Your task to perform on an android device: turn smart compose on in the gmail app Image 0: 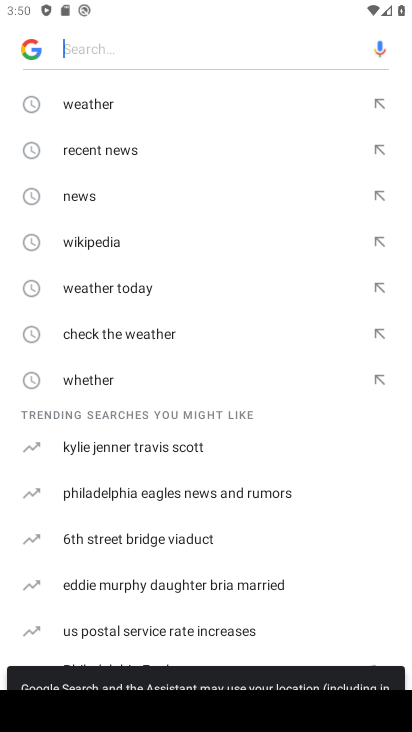
Step 0: press home button
Your task to perform on an android device: turn smart compose on in the gmail app Image 1: 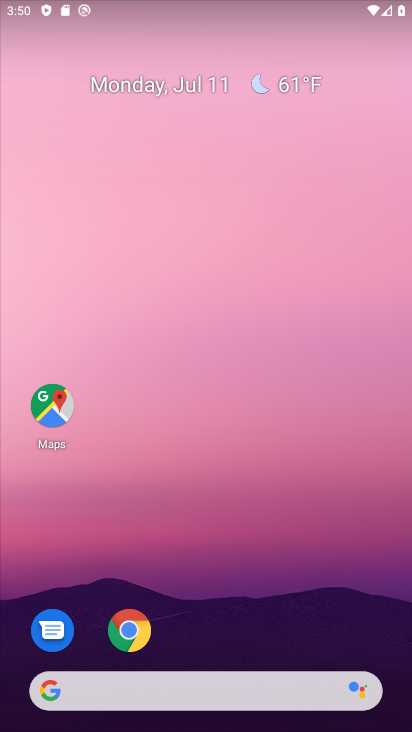
Step 1: drag from (166, 662) to (253, 203)
Your task to perform on an android device: turn smart compose on in the gmail app Image 2: 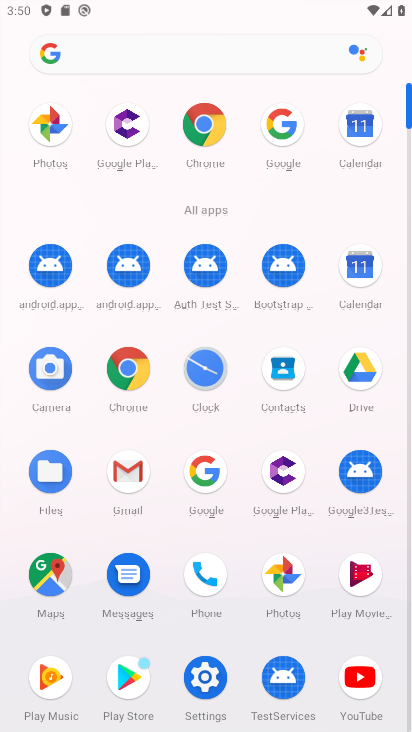
Step 2: click (110, 479)
Your task to perform on an android device: turn smart compose on in the gmail app Image 3: 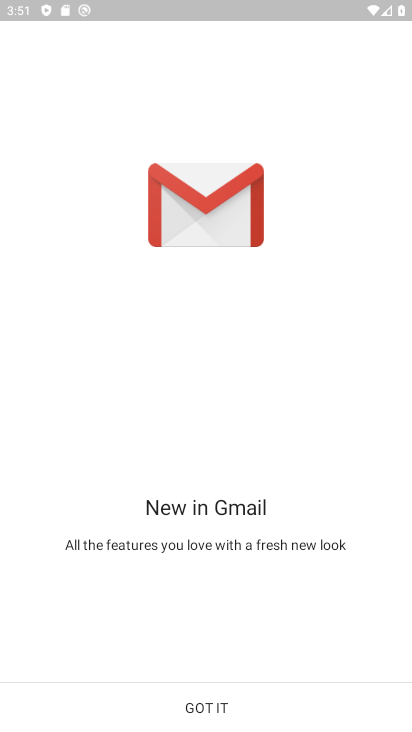
Step 3: click (207, 706)
Your task to perform on an android device: turn smart compose on in the gmail app Image 4: 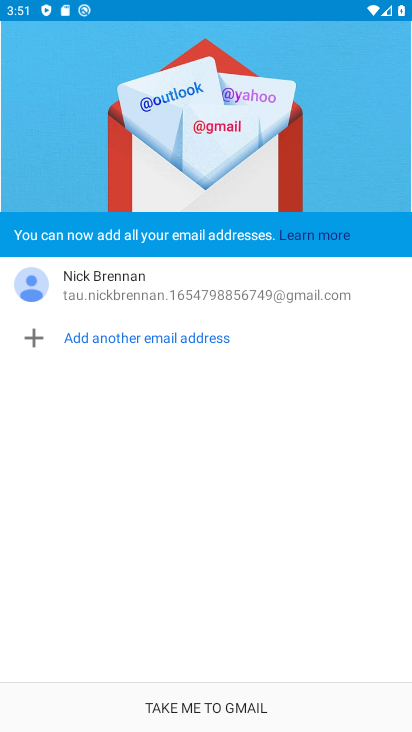
Step 4: click (209, 706)
Your task to perform on an android device: turn smart compose on in the gmail app Image 5: 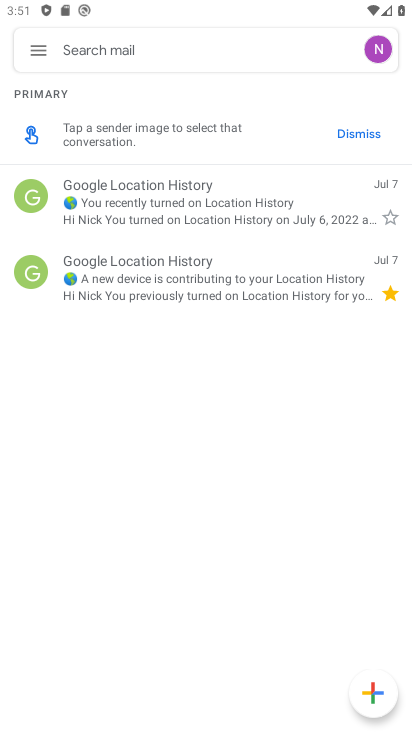
Step 5: click (40, 66)
Your task to perform on an android device: turn smart compose on in the gmail app Image 6: 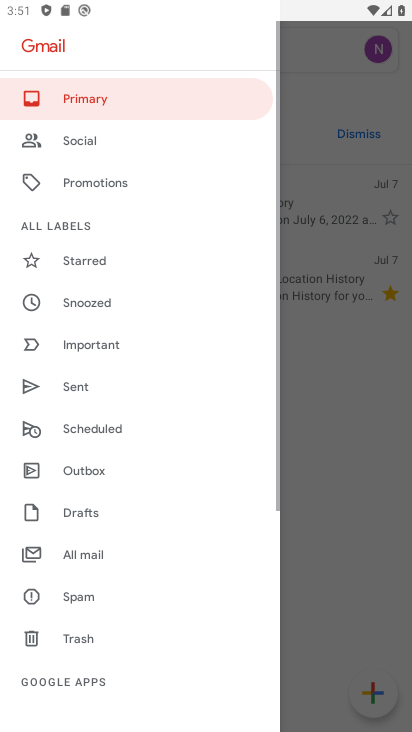
Step 6: drag from (89, 603) to (196, 259)
Your task to perform on an android device: turn smart compose on in the gmail app Image 7: 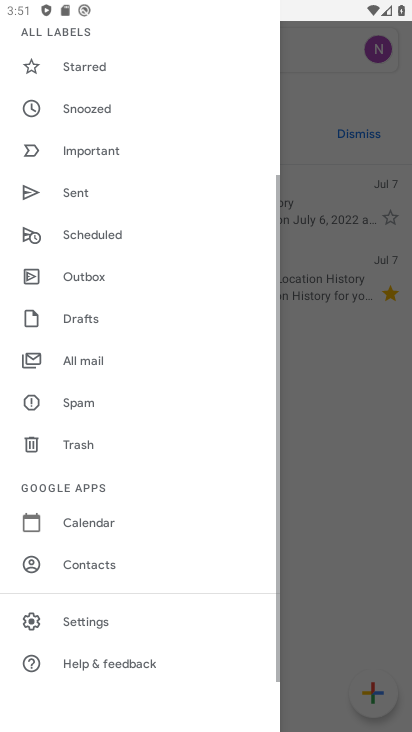
Step 7: click (98, 628)
Your task to perform on an android device: turn smart compose on in the gmail app Image 8: 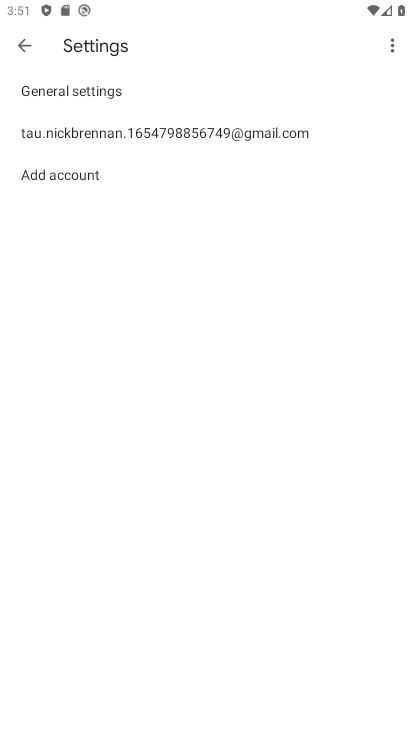
Step 8: click (259, 132)
Your task to perform on an android device: turn smart compose on in the gmail app Image 9: 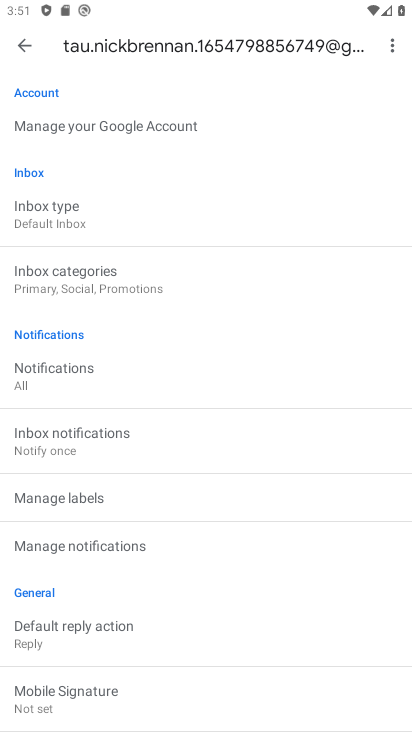
Step 9: task complete